Your task to perform on an android device: turn on airplane mode Image 0: 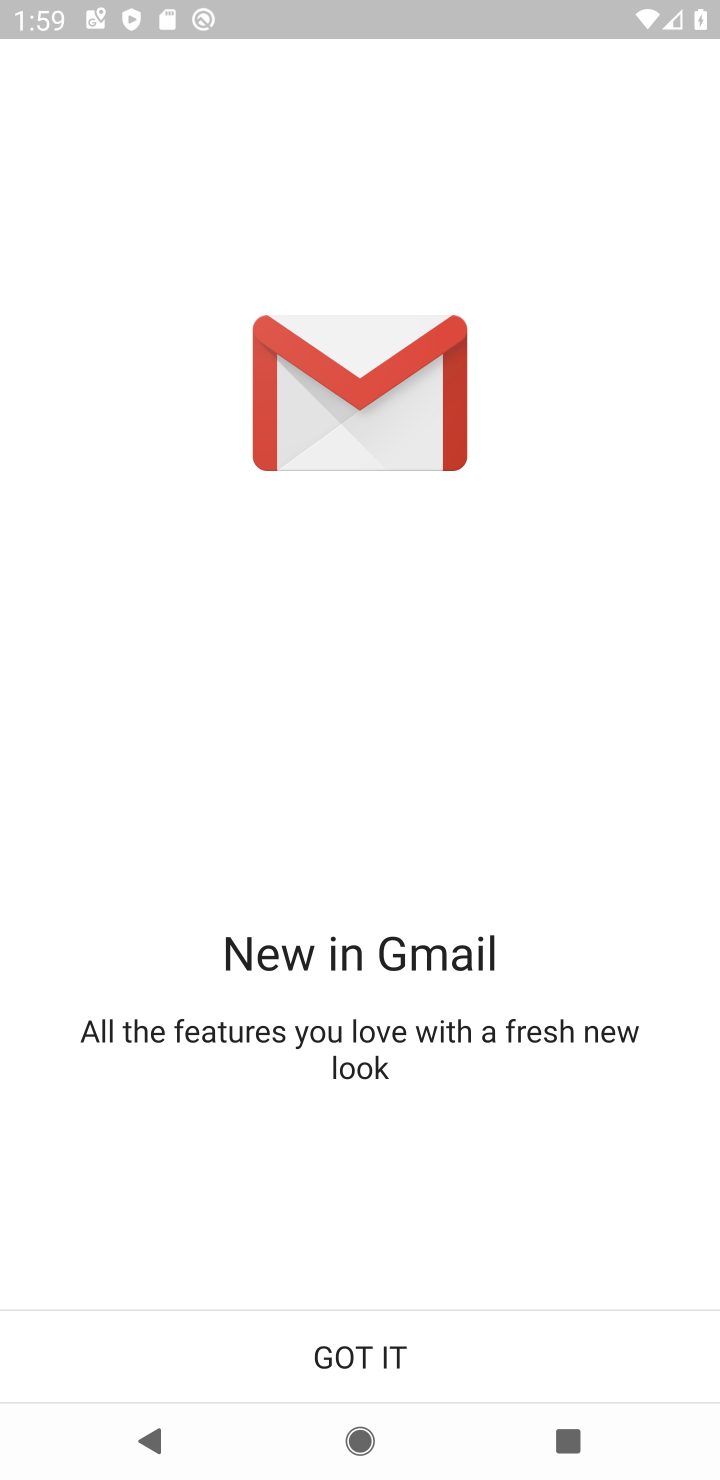
Step 0: press home button
Your task to perform on an android device: turn on airplane mode Image 1: 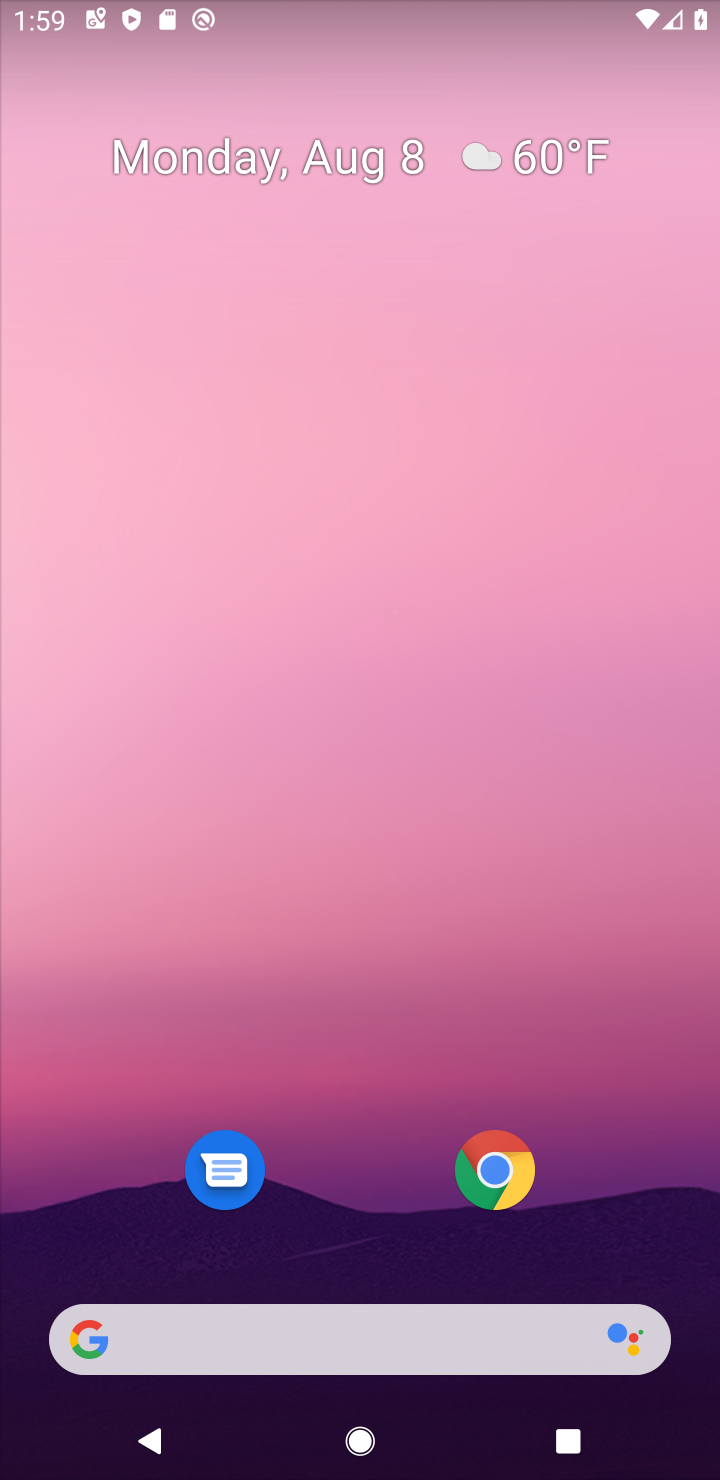
Step 1: drag from (338, 1122) to (332, 453)
Your task to perform on an android device: turn on airplane mode Image 2: 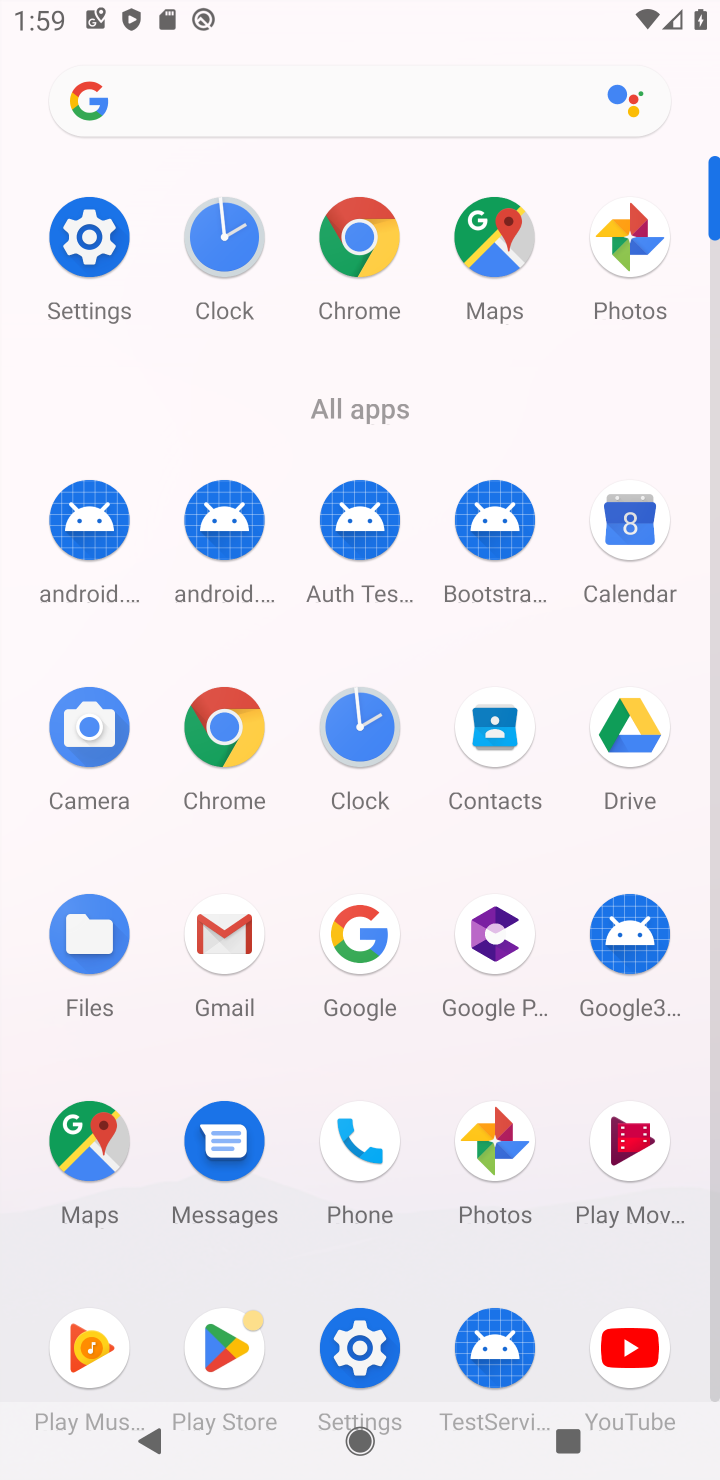
Step 2: click (119, 260)
Your task to perform on an android device: turn on airplane mode Image 3: 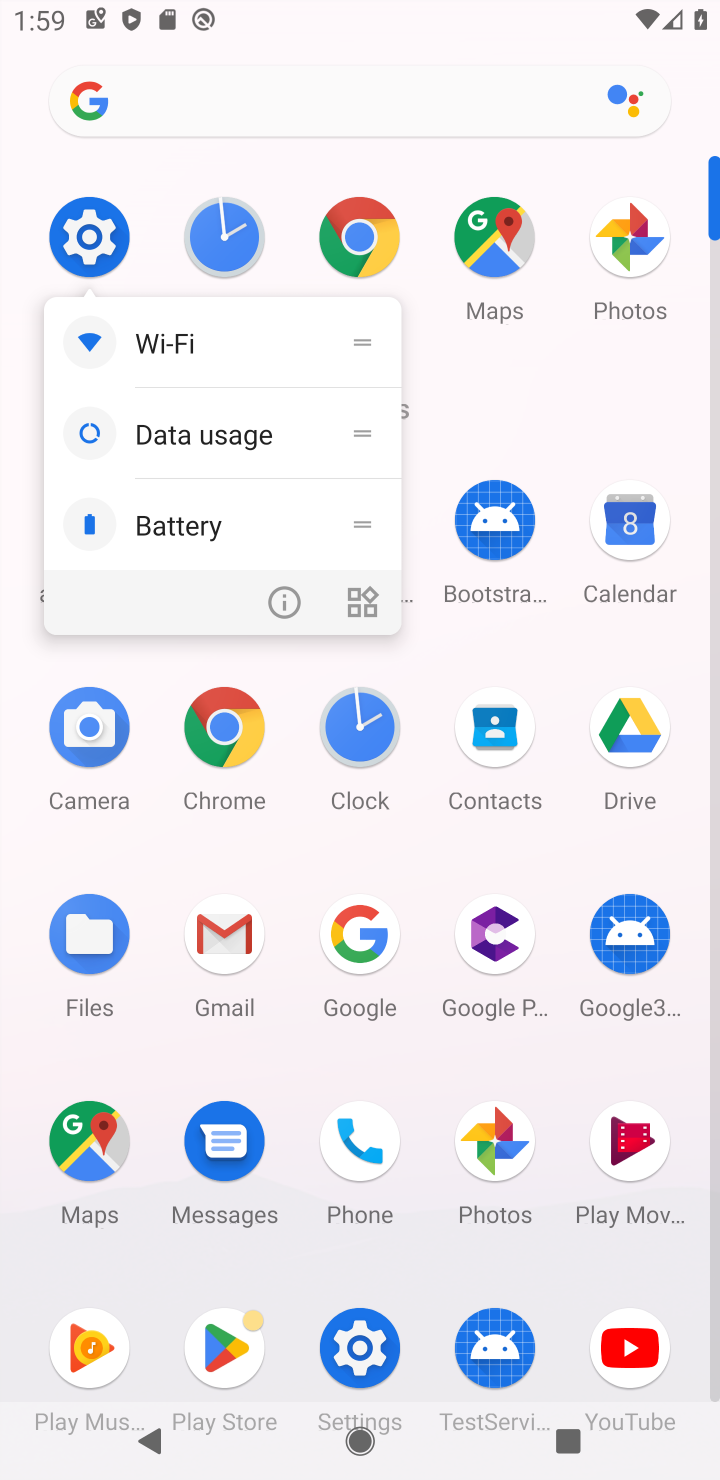
Step 3: click (95, 267)
Your task to perform on an android device: turn on airplane mode Image 4: 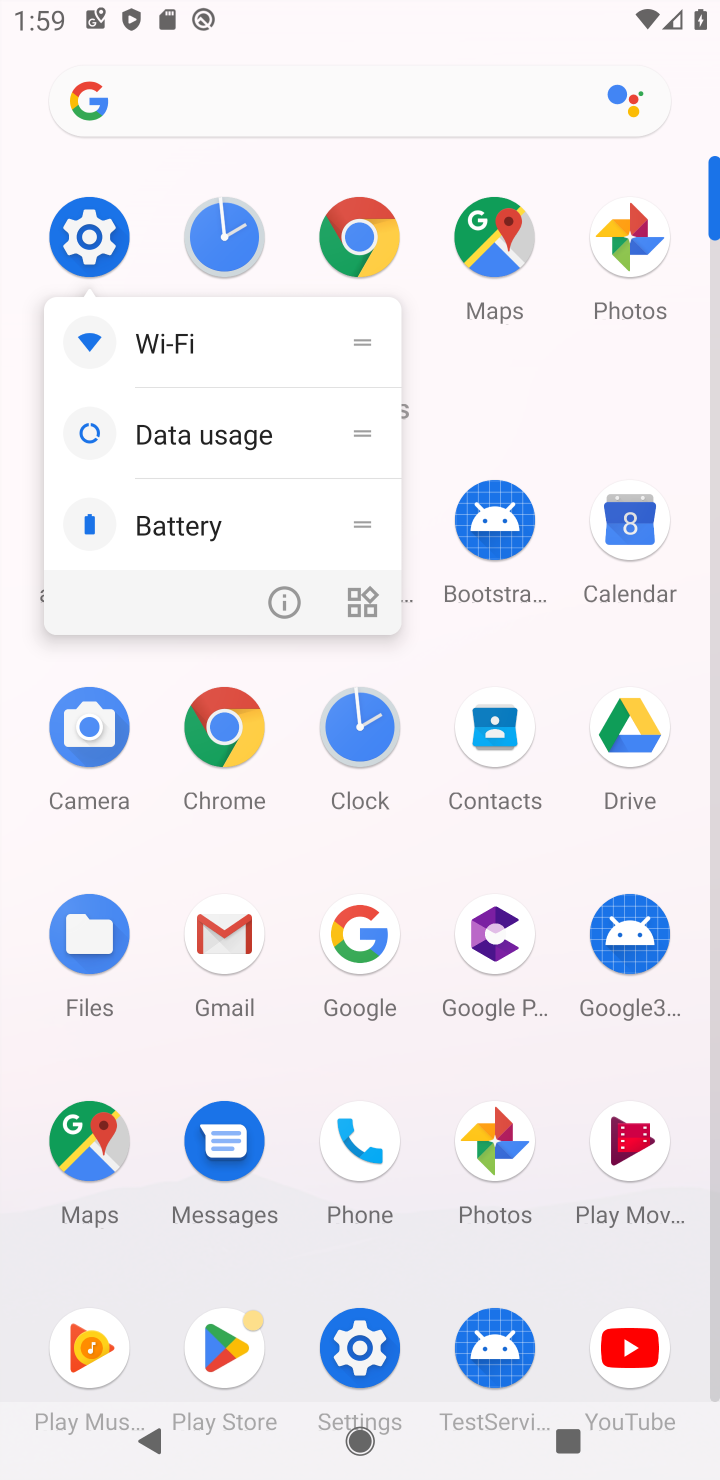
Step 4: click (95, 267)
Your task to perform on an android device: turn on airplane mode Image 5: 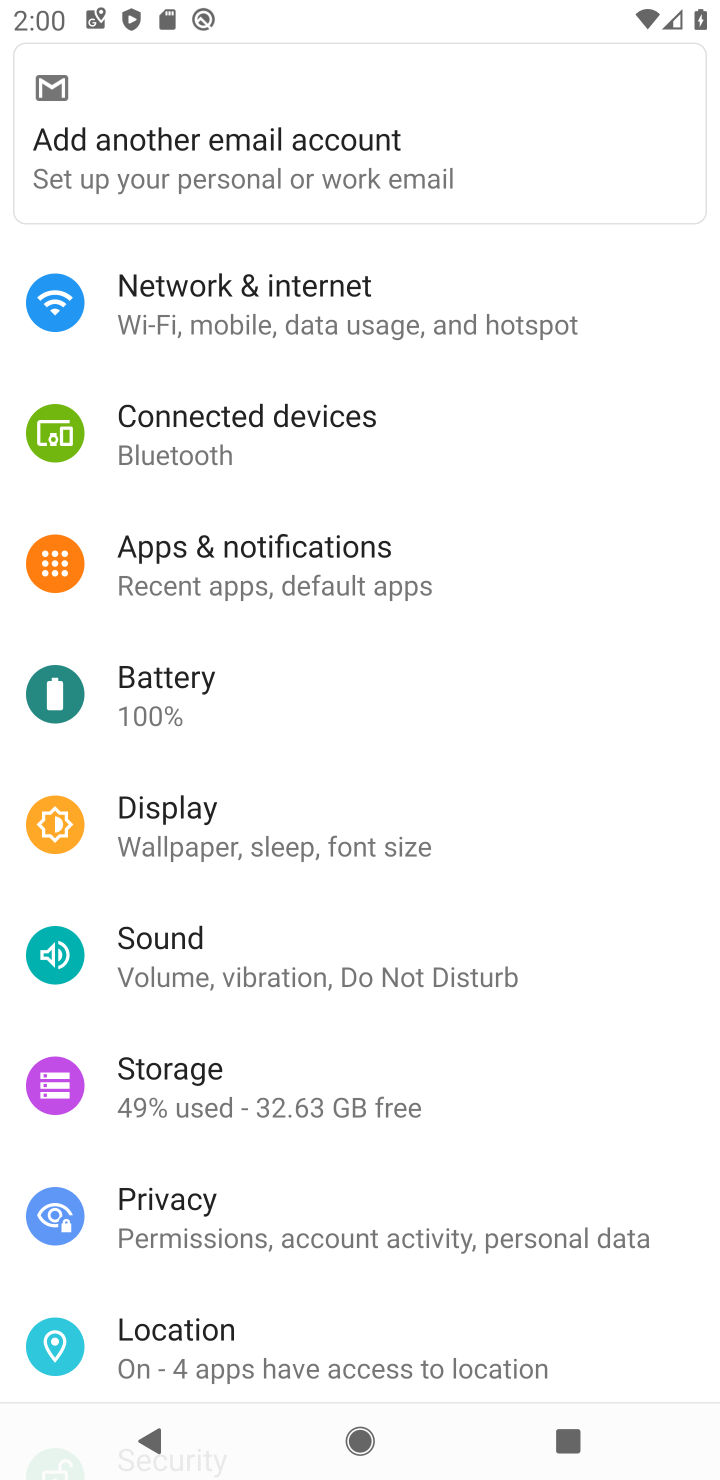
Step 5: click (250, 280)
Your task to perform on an android device: turn on airplane mode Image 6: 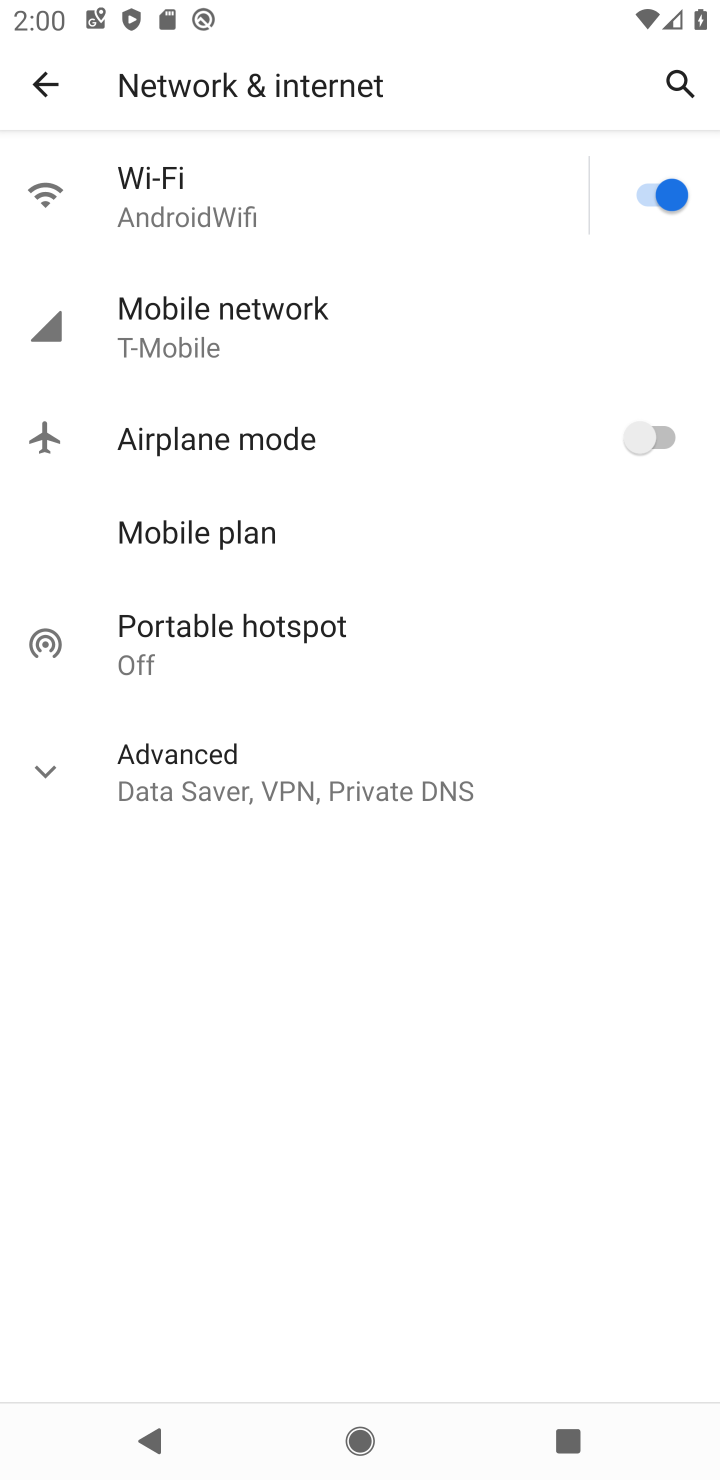
Step 6: click (663, 438)
Your task to perform on an android device: turn on airplane mode Image 7: 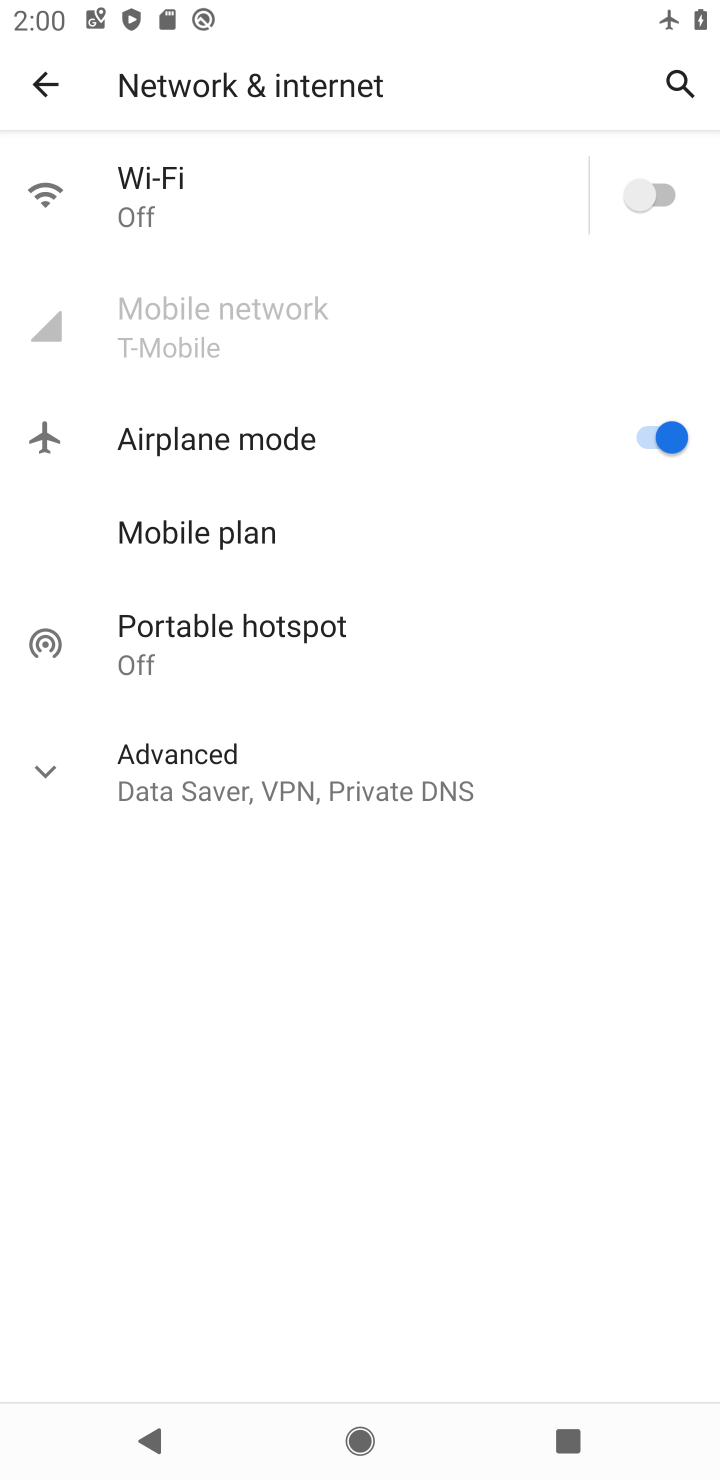
Step 7: task complete